Your task to perform on an android device: turn off notifications settings in the gmail app Image 0: 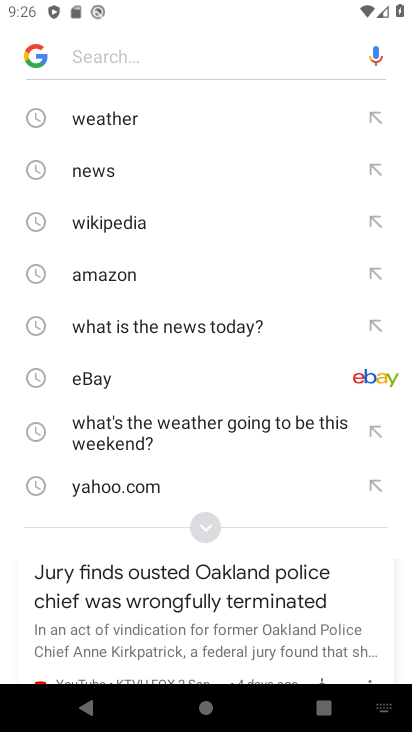
Step 0: press back button
Your task to perform on an android device: turn off notifications settings in the gmail app Image 1: 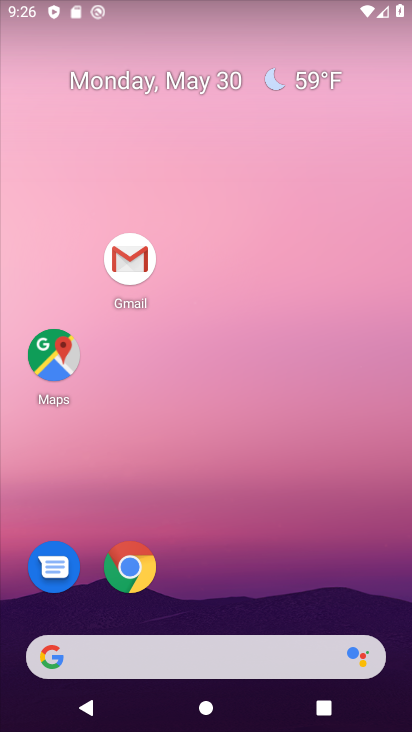
Step 1: click (133, 262)
Your task to perform on an android device: turn off notifications settings in the gmail app Image 2: 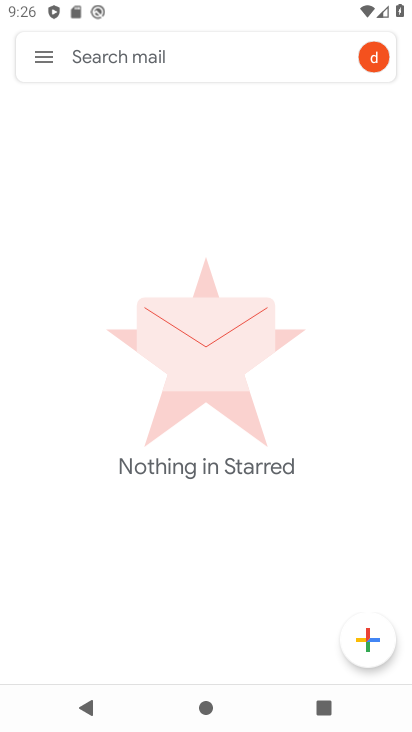
Step 2: click (38, 67)
Your task to perform on an android device: turn off notifications settings in the gmail app Image 3: 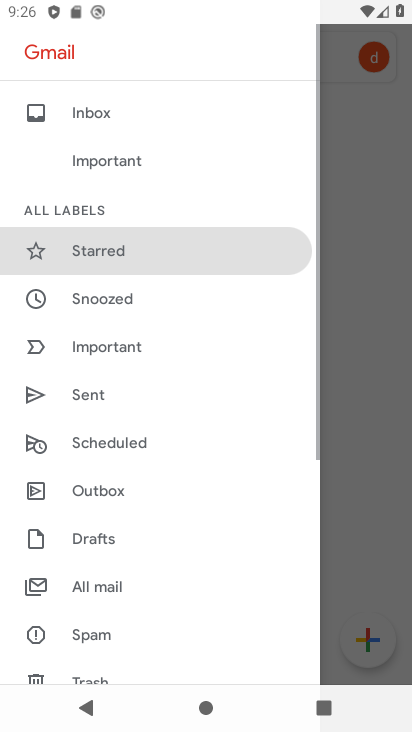
Step 3: drag from (203, 613) to (279, 163)
Your task to perform on an android device: turn off notifications settings in the gmail app Image 4: 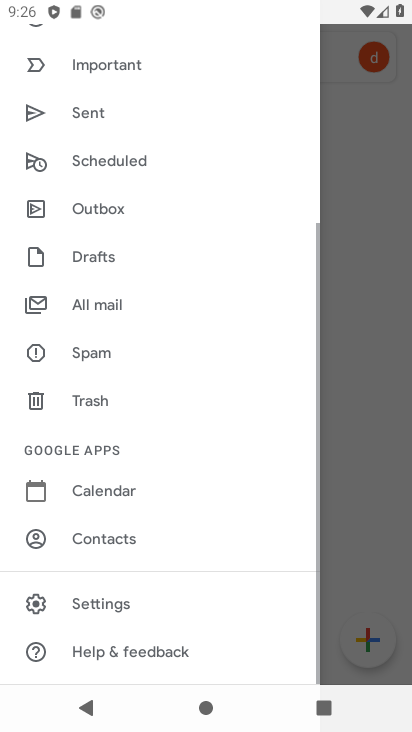
Step 4: click (156, 602)
Your task to perform on an android device: turn off notifications settings in the gmail app Image 5: 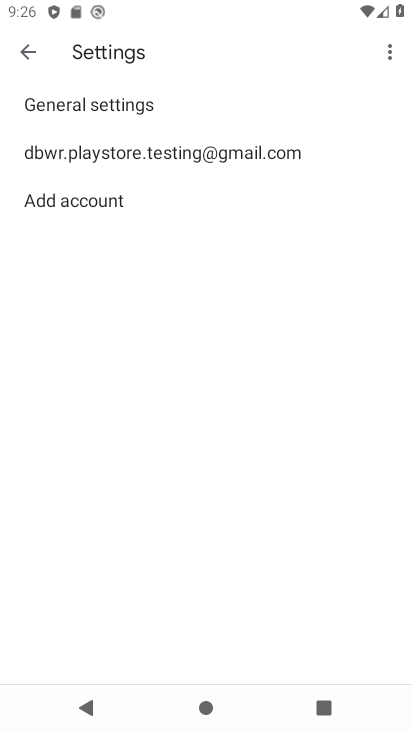
Step 5: click (217, 152)
Your task to perform on an android device: turn off notifications settings in the gmail app Image 6: 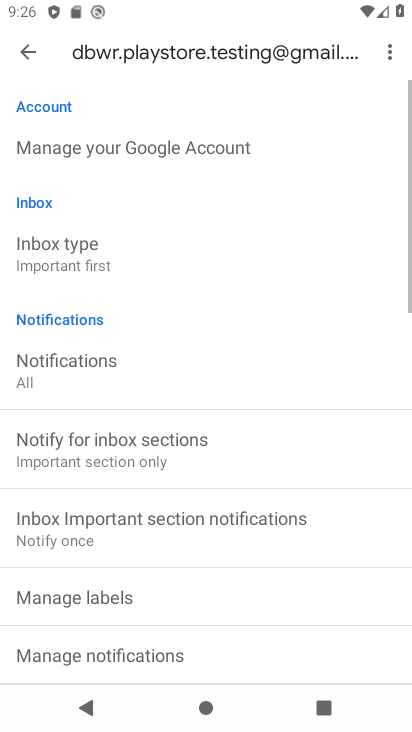
Step 6: click (141, 379)
Your task to perform on an android device: turn off notifications settings in the gmail app Image 7: 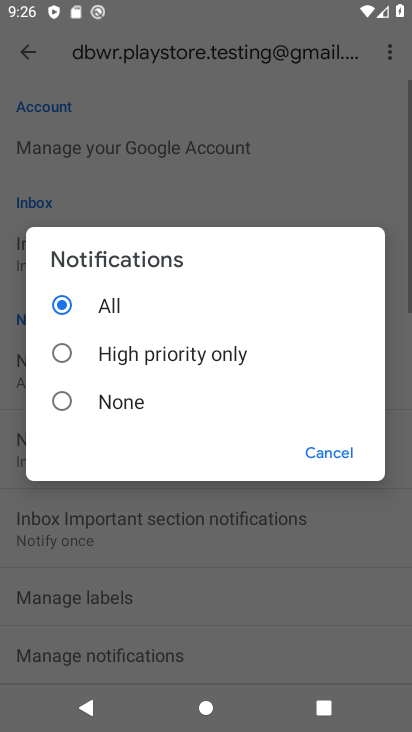
Step 7: click (139, 405)
Your task to perform on an android device: turn off notifications settings in the gmail app Image 8: 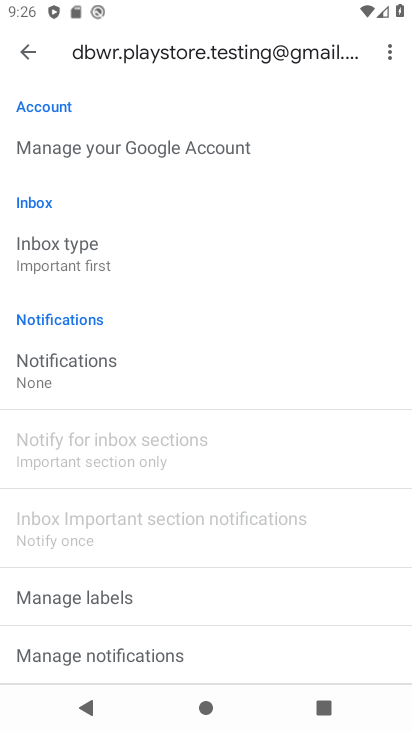
Step 8: task complete